Your task to perform on an android device: Open the map Image 0: 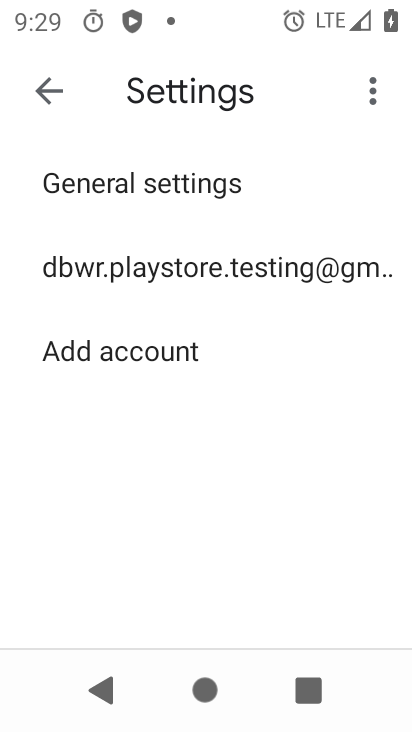
Step 0: press home button
Your task to perform on an android device: Open the map Image 1: 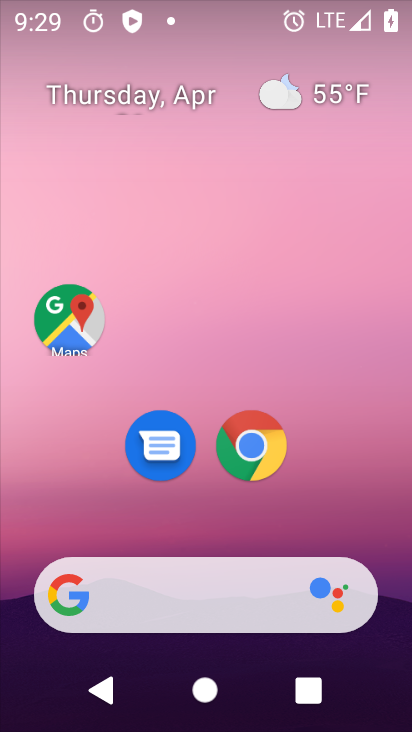
Step 1: click (69, 337)
Your task to perform on an android device: Open the map Image 2: 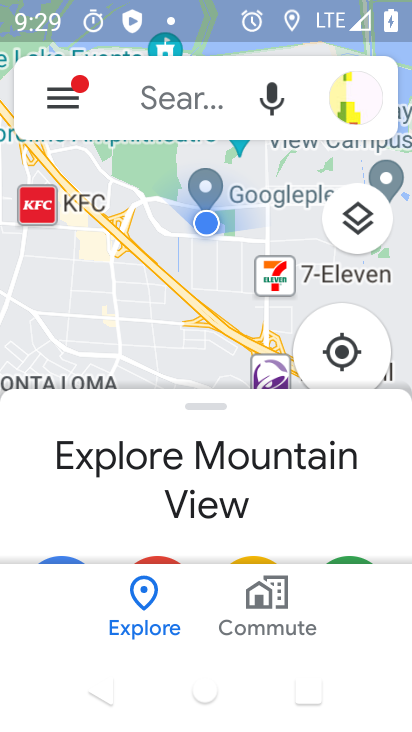
Step 2: task complete